Your task to perform on an android device: delete location history Image 0: 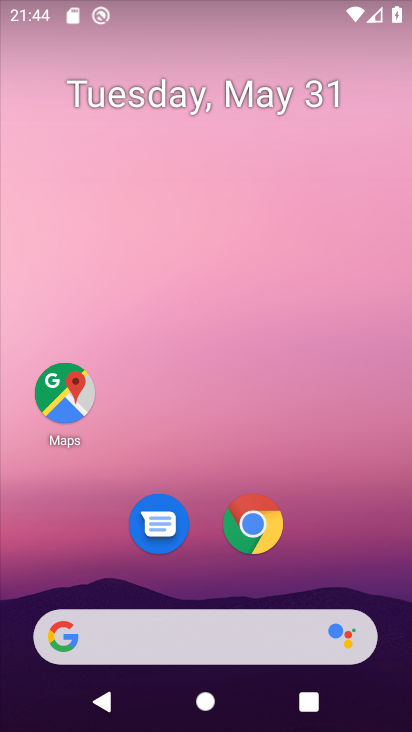
Step 0: click (72, 393)
Your task to perform on an android device: delete location history Image 1: 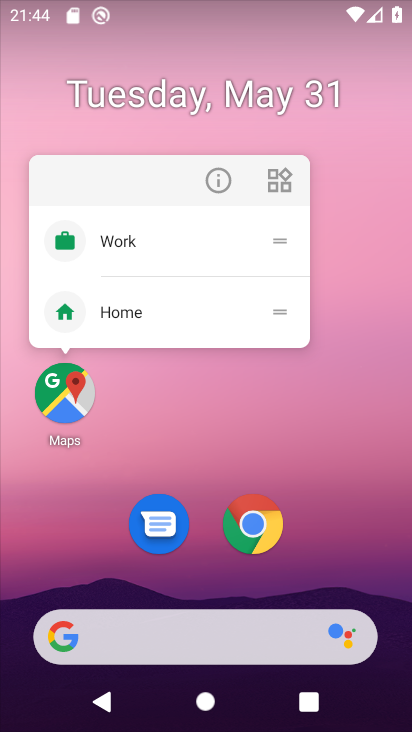
Step 1: click (72, 398)
Your task to perform on an android device: delete location history Image 2: 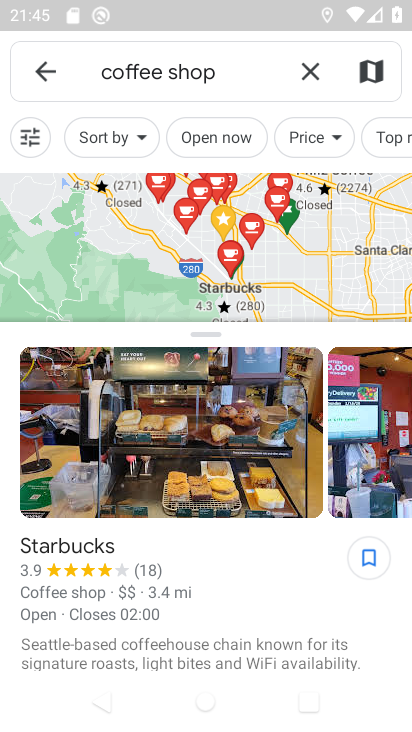
Step 2: click (305, 69)
Your task to perform on an android device: delete location history Image 3: 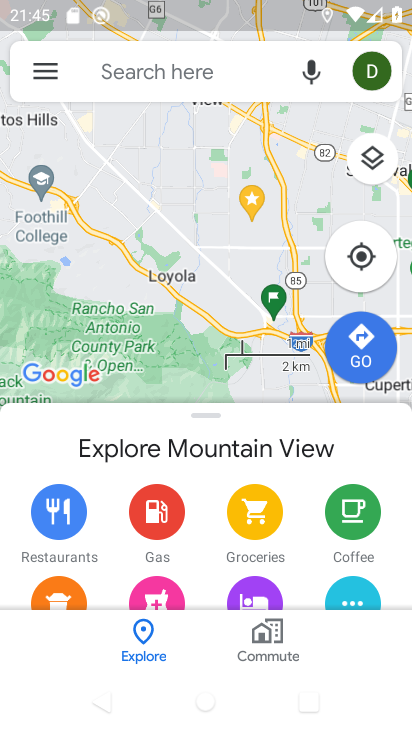
Step 3: click (50, 66)
Your task to perform on an android device: delete location history Image 4: 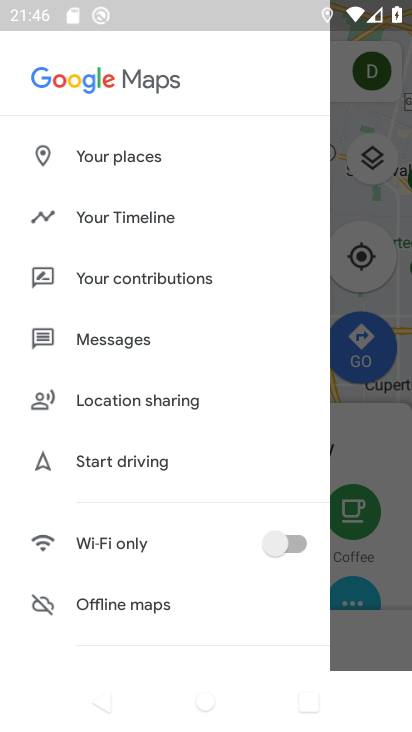
Step 4: click (143, 210)
Your task to perform on an android device: delete location history Image 5: 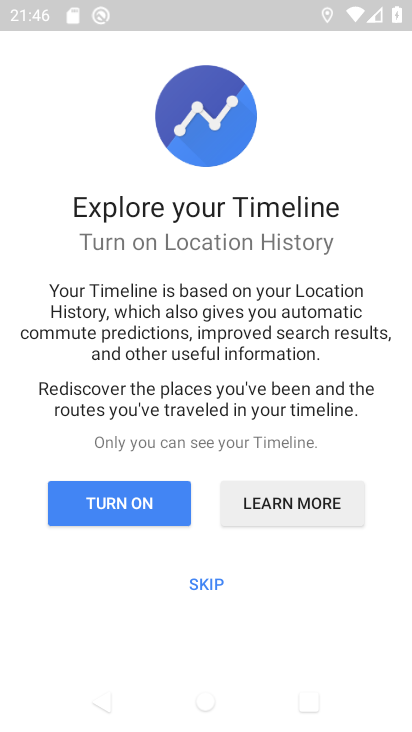
Step 5: click (221, 575)
Your task to perform on an android device: delete location history Image 6: 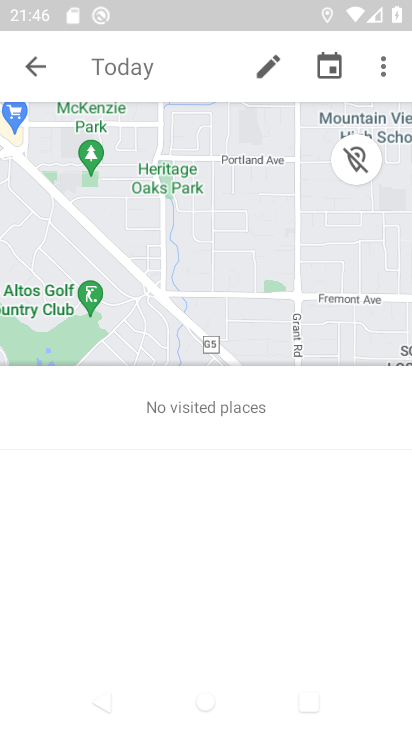
Step 6: click (376, 64)
Your task to perform on an android device: delete location history Image 7: 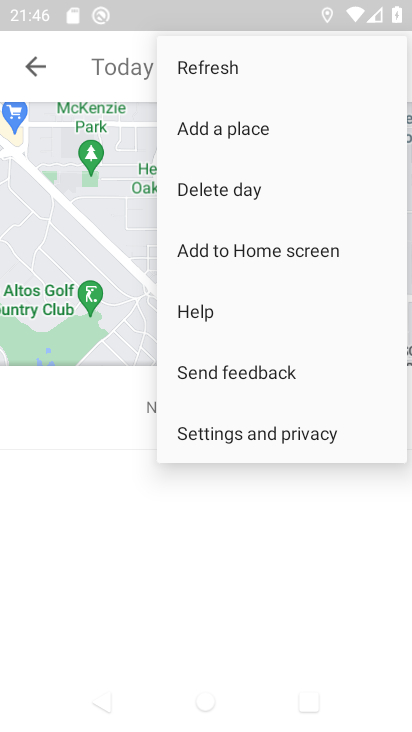
Step 7: click (317, 432)
Your task to perform on an android device: delete location history Image 8: 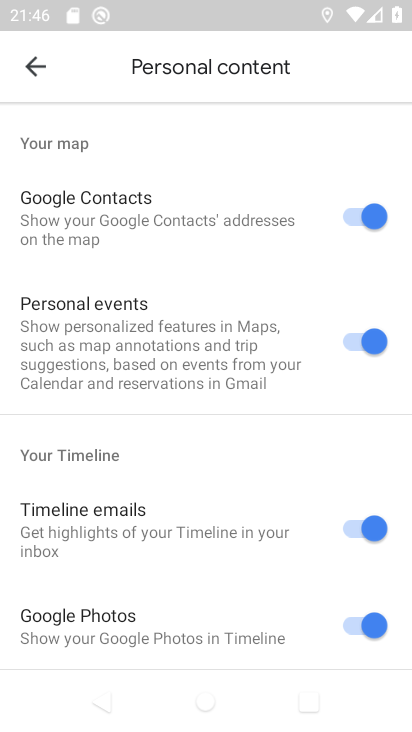
Step 8: drag from (263, 533) to (265, 162)
Your task to perform on an android device: delete location history Image 9: 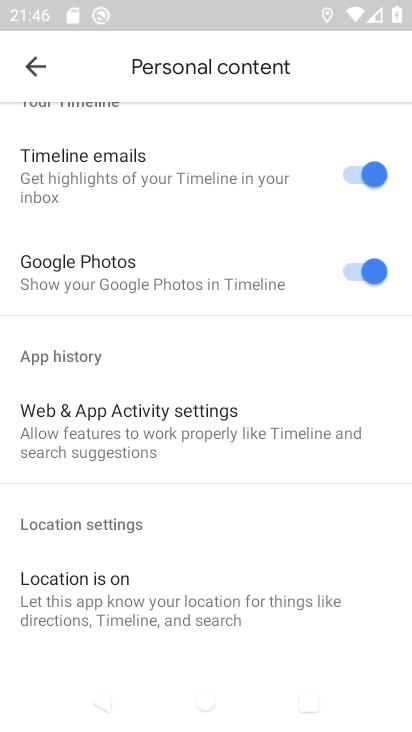
Step 9: drag from (221, 486) to (237, 162)
Your task to perform on an android device: delete location history Image 10: 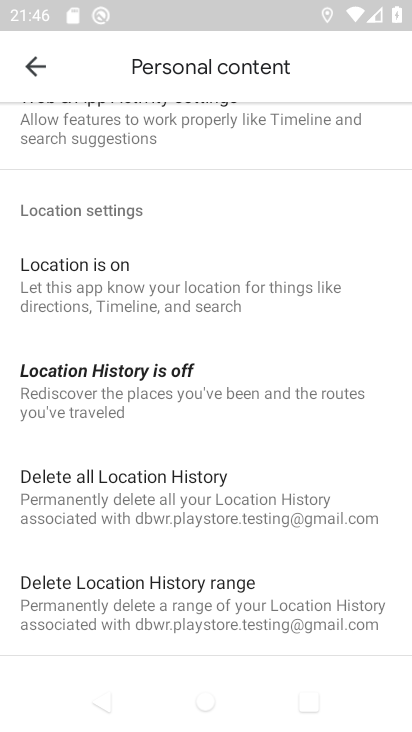
Step 10: click (180, 506)
Your task to perform on an android device: delete location history Image 11: 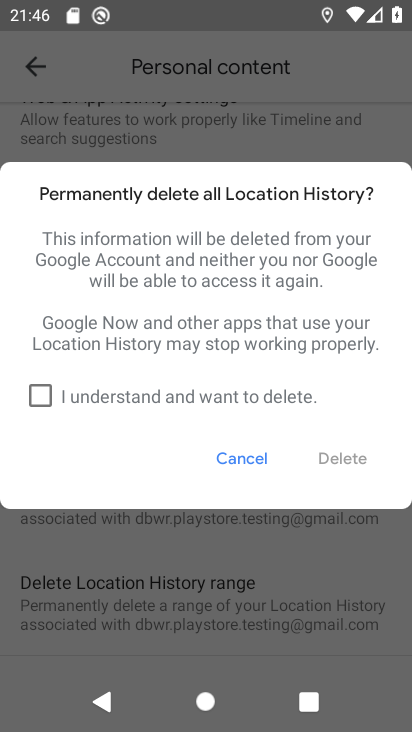
Step 11: click (42, 386)
Your task to perform on an android device: delete location history Image 12: 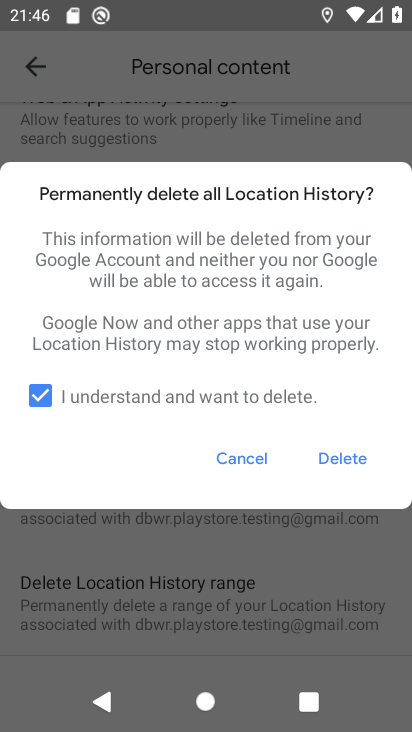
Step 12: click (346, 443)
Your task to perform on an android device: delete location history Image 13: 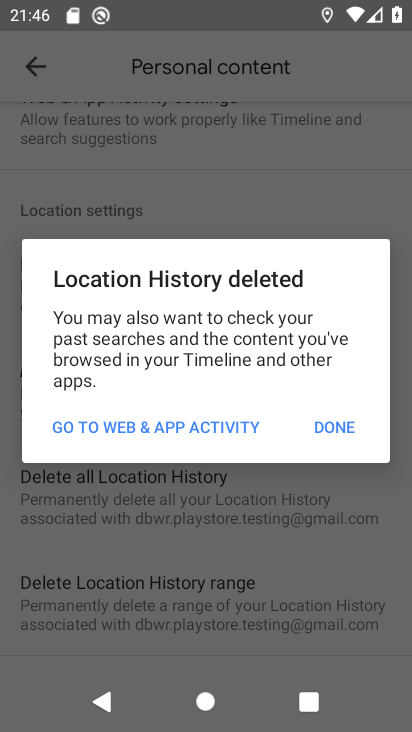
Step 13: task complete